Your task to perform on an android device: Open wifi settings Image 0: 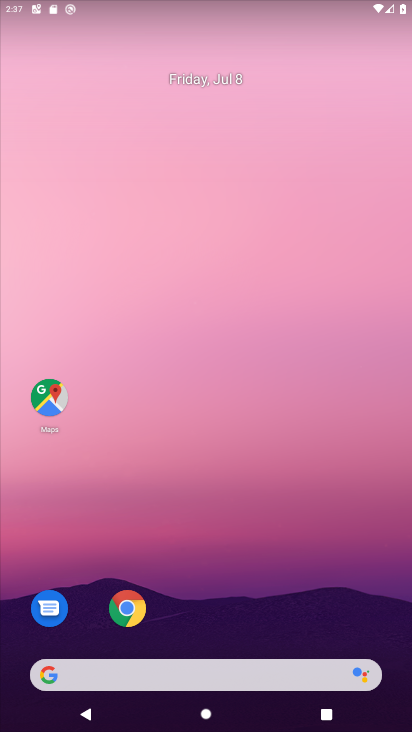
Step 0: drag from (262, 611) to (263, 373)
Your task to perform on an android device: Open wifi settings Image 1: 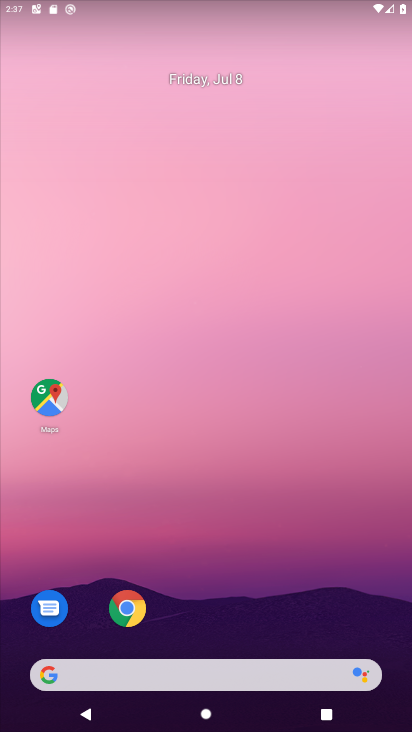
Step 1: drag from (228, 665) to (224, 263)
Your task to perform on an android device: Open wifi settings Image 2: 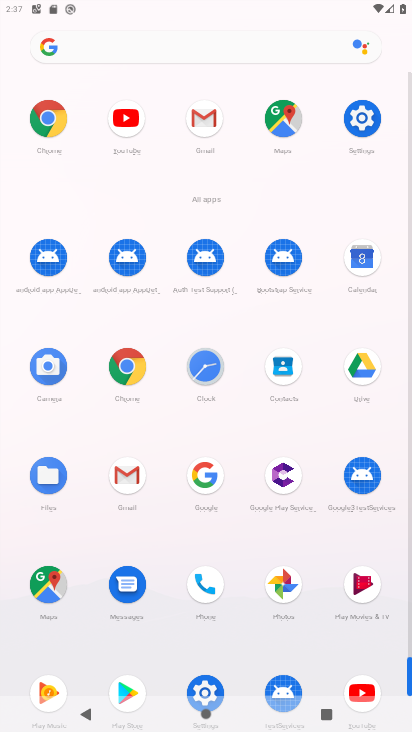
Step 2: click (346, 118)
Your task to perform on an android device: Open wifi settings Image 3: 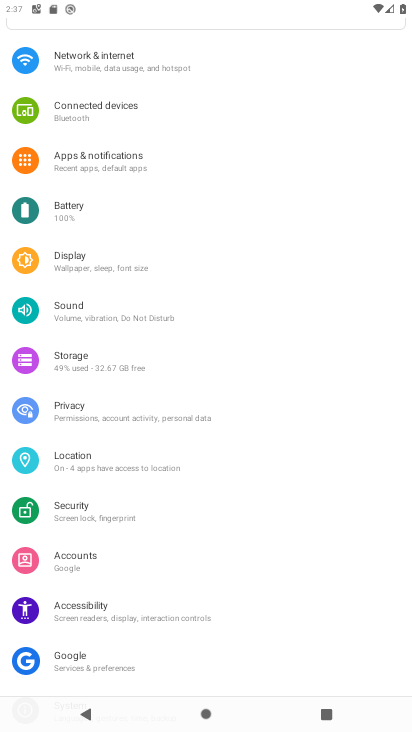
Step 3: click (109, 61)
Your task to perform on an android device: Open wifi settings Image 4: 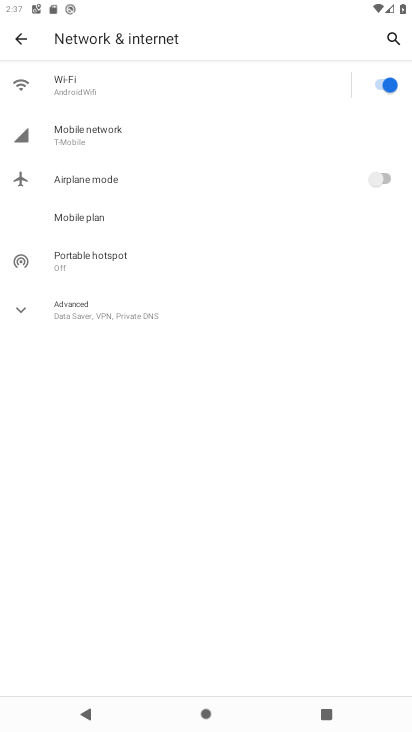
Step 4: click (109, 80)
Your task to perform on an android device: Open wifi settings Image 5: 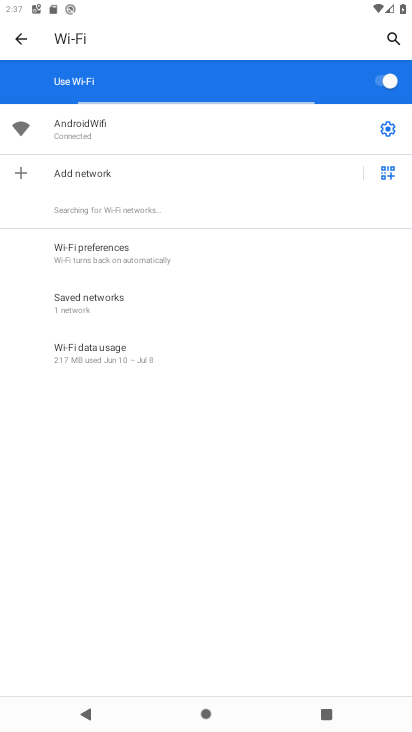
Step 5: task complete